Your task to perform on an android device: open app "DoorDash - Dasher" (install if not already installed) Image 0: 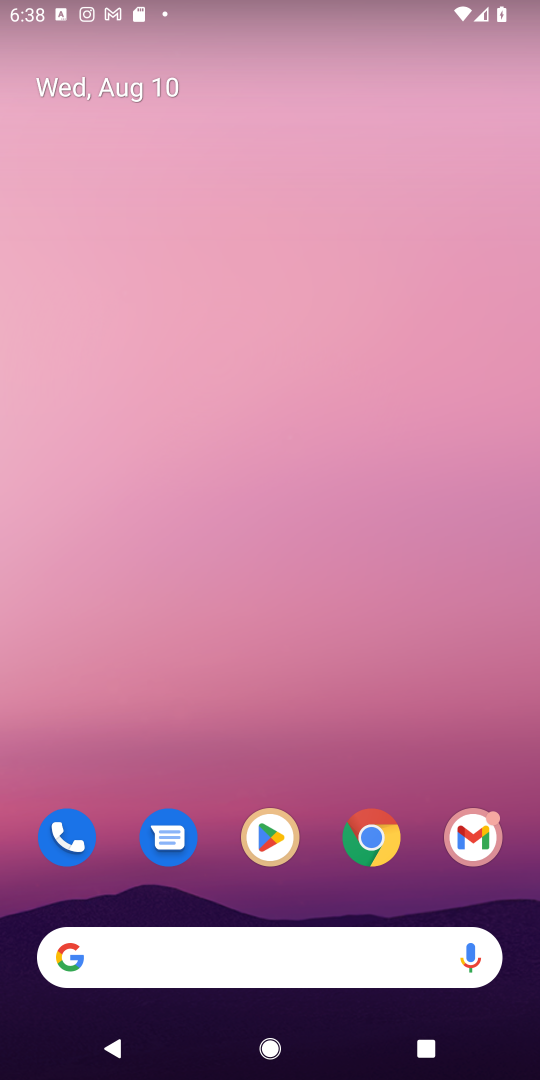
Step 0: press home button
Your task to perform on an android device: open app "DoorDash - Dasher" (install if not already installed) Image 1: 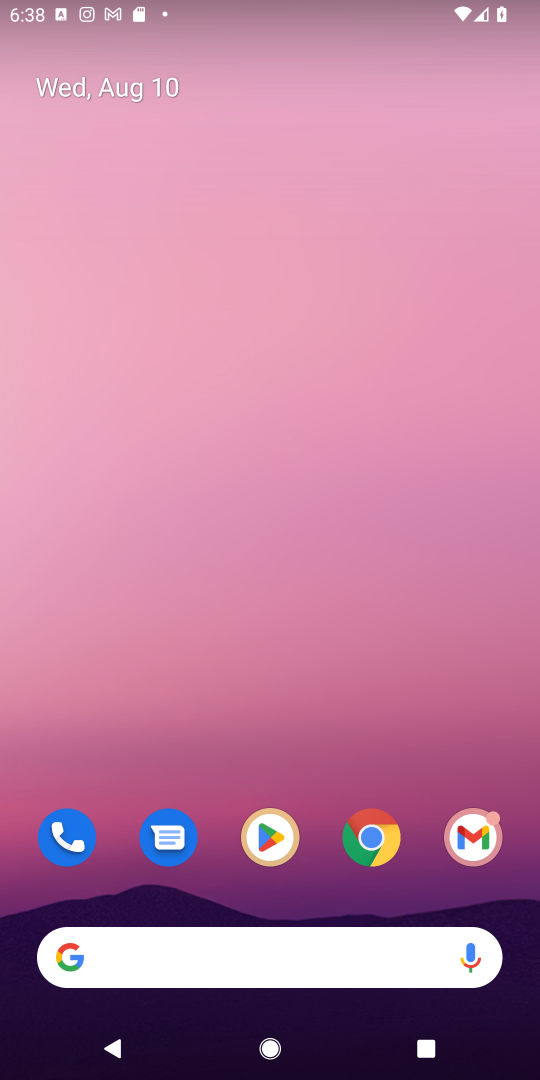
Step 1: click (259, 842)
Your task to perform on an android device: open app "DoorDash - Dasher" (install if not already installed) Image 2: 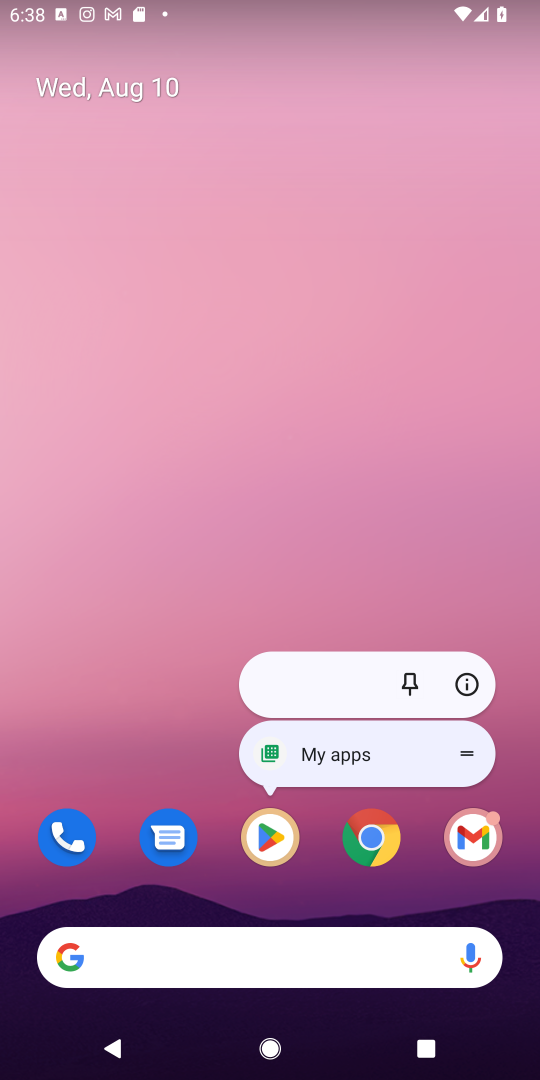
Step 2: click (268, 834)
Your task to perform on an android device: open app "DoorDash - Dasher" (install if not already installed) Image 3: 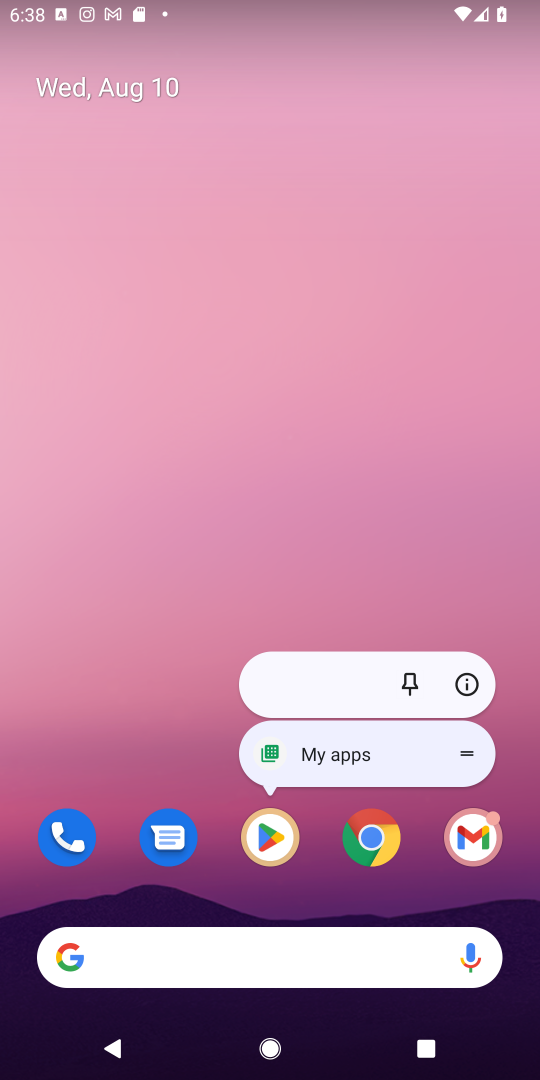
Step 3: click (278, 848)
Your task to perform on an android device: open app "DoorDash - Dasher" (install if not already installed) Image 4: 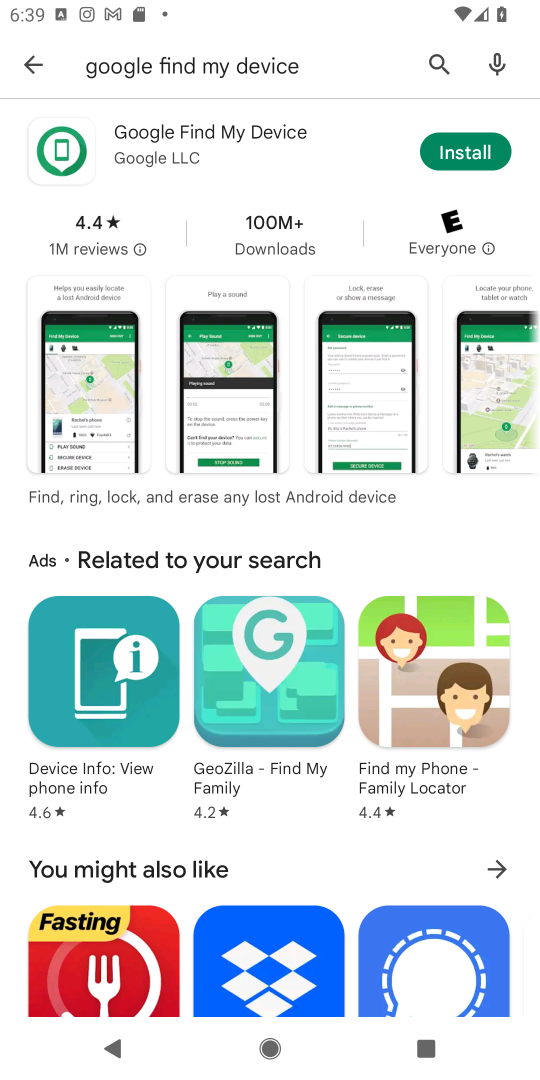
Step 4: click (435, 60)
Your task to perform on an android device: open app "DoorDash - Dasher" (install if not already installed) Image 5: 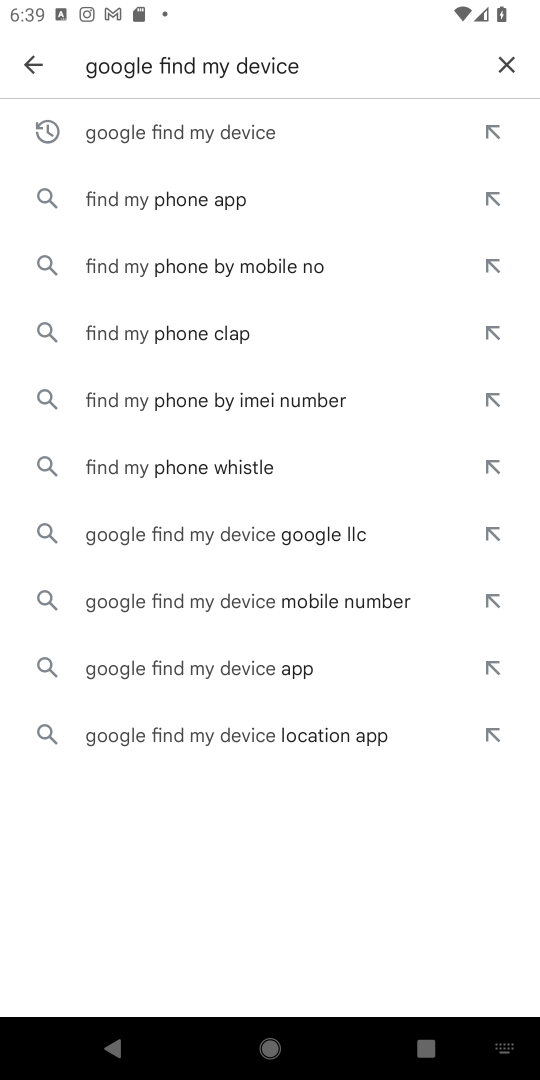
Step 5: click (510, 58)
Your task to perform on an android device: open app "DoorDash - Dasher" (install if not already installed) Image 6: 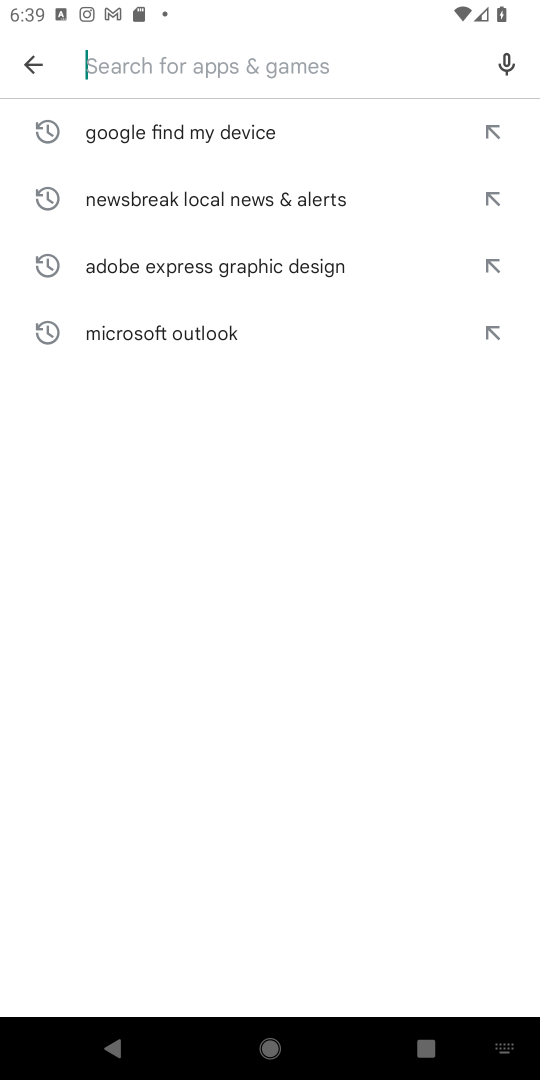
Step 6: type "DoorDash - Dasher"
Your task to perform on an android device: open app "DoorDash - Dasher" (install if not already installed) Image 7: 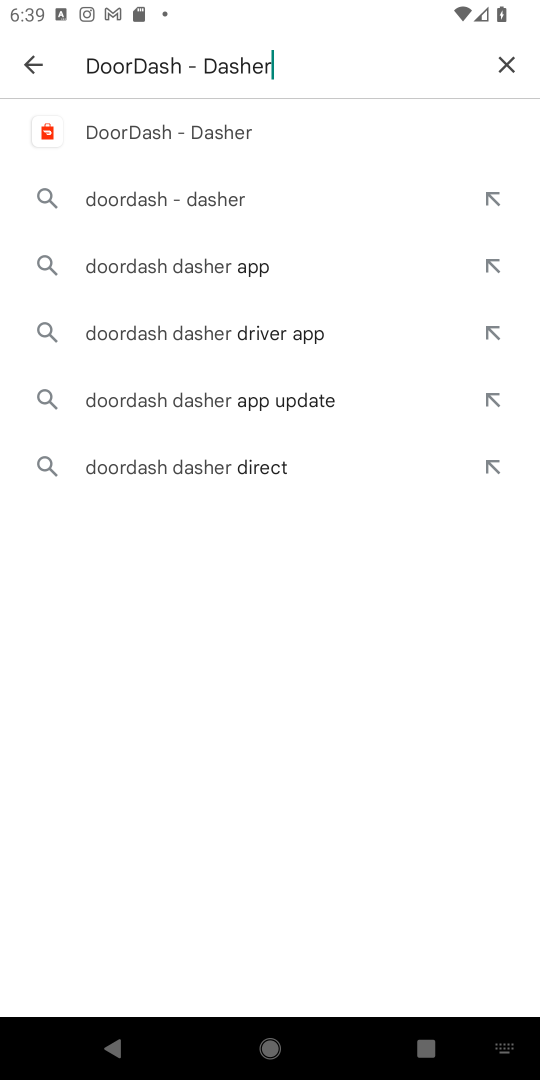
Step 7: click (163, 127)
Your task to perform on an android device: open app "DoorDash - Dasher" (install if not already installed) Image 8: 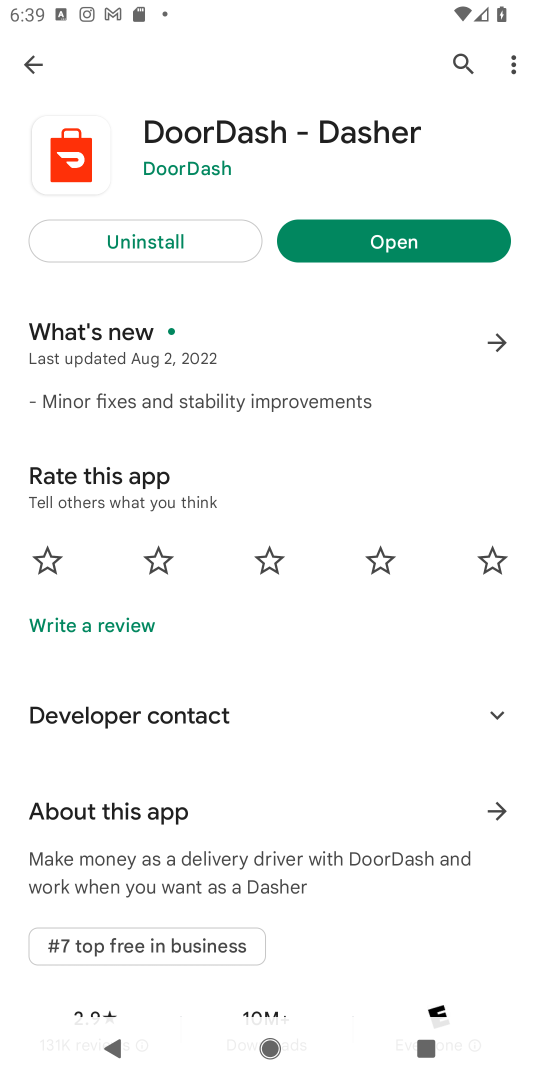
Step 8: click (423, 241)
Your task to perform on an android device: open app "DoorDash - Dasher" (install if not already installed) Image 9: 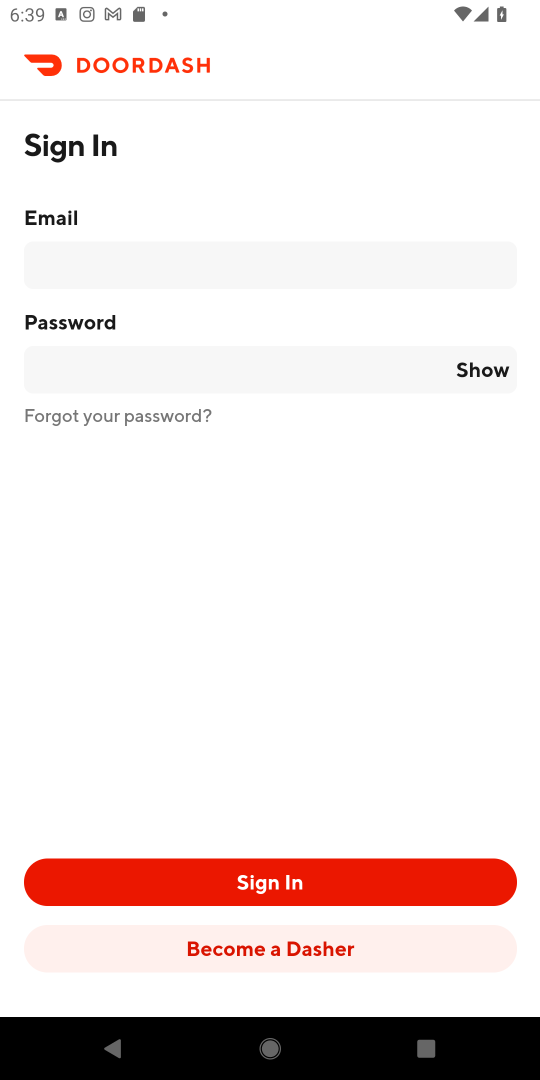
Step 9: task complete